Your task to perform on an android device: Find coffee shops on Maps Image 0: 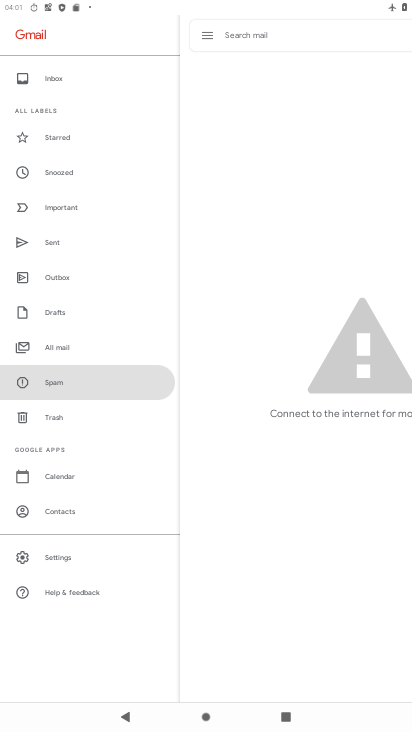
Step 0: press home button
Your task to perform on an android device: Find coffee shops on Maps Image 1: 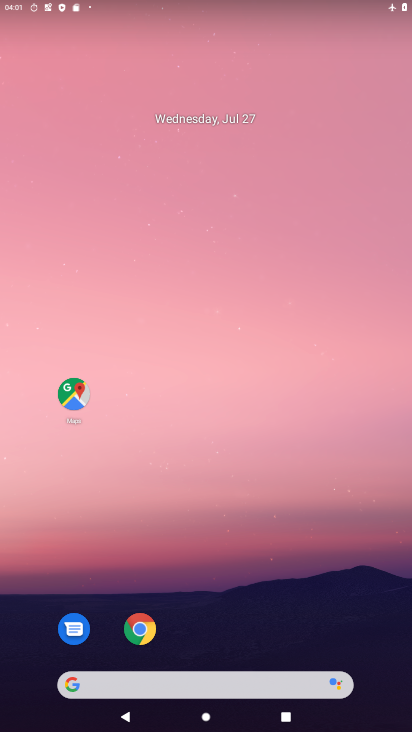
Step 1: drag from (351, 566) to (258, 35)
Your task to perform on an android device: Find coffee shops on Maps Image 2: 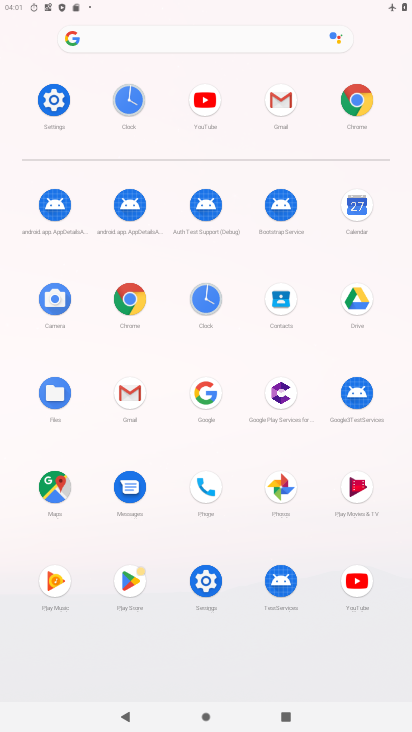
Step 2: click (65, 486)
Your task to perform on an android device: Find coffee shops on Maps Image 3: 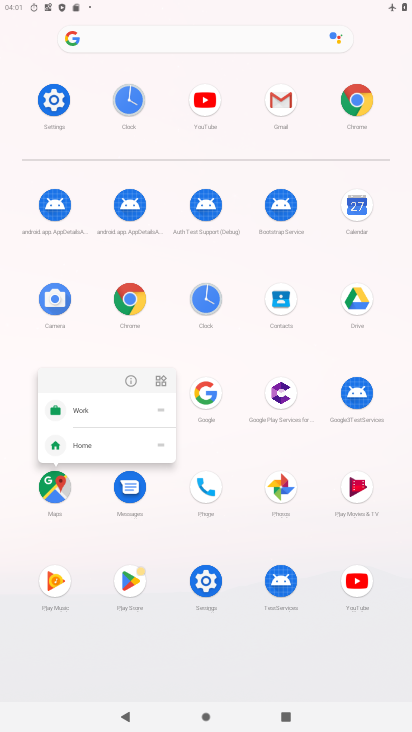
Step 3: click (53, 485)
Your task to perform on an android device: Find coffee shops on Maps Image 4: 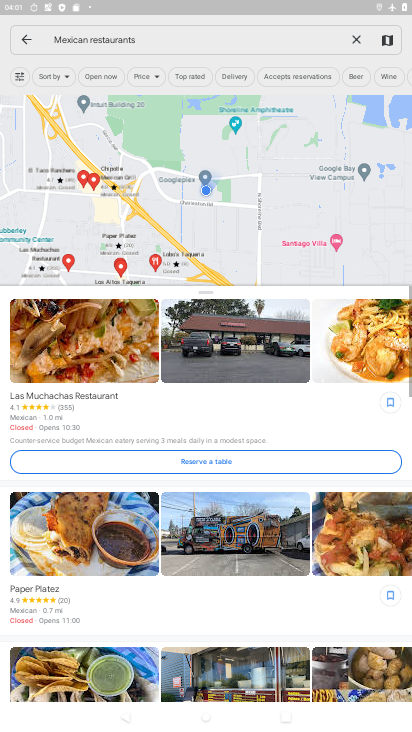
Step 4: click (358, 44)
Your task to perform on an android device: Find coffee shops on Maps Image 5: 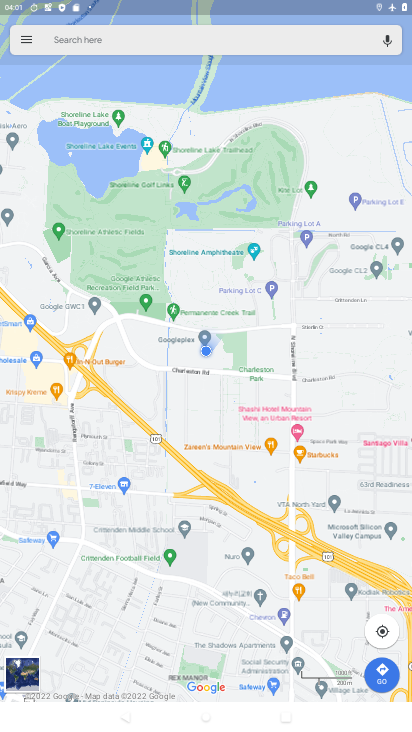
Step 5: click (265, 42)
Your task to perform on an android device: Find coffee shops on Maps Image 6: 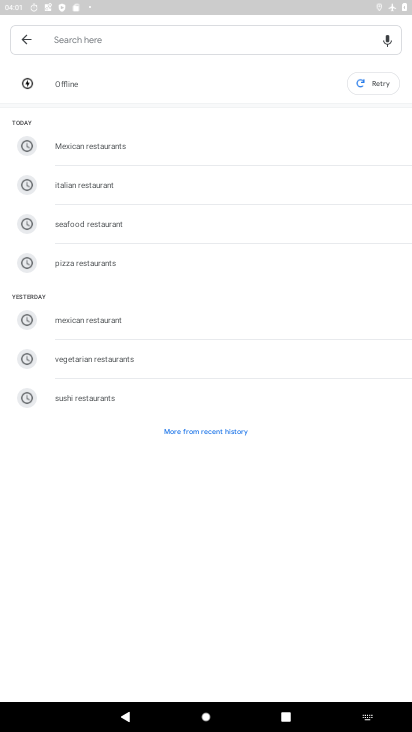
Step 6: type "coffee shops"
Your task to perform on an android device: Find coffee shops on Maps Image 7: 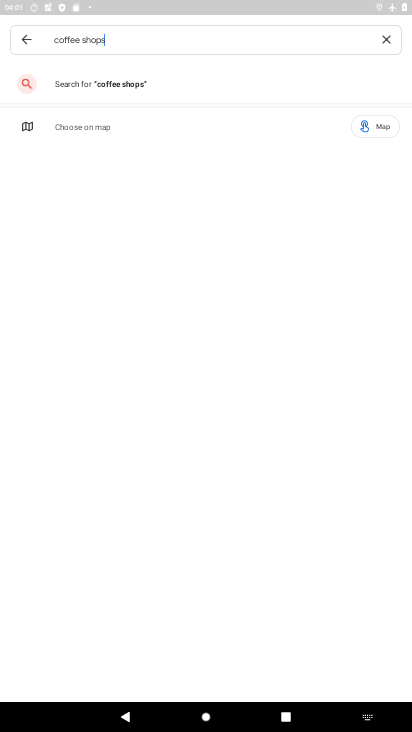
Step 7: click (132, 79)
Your task to perform on an android device: Find coffee shops on Maps Image 8: 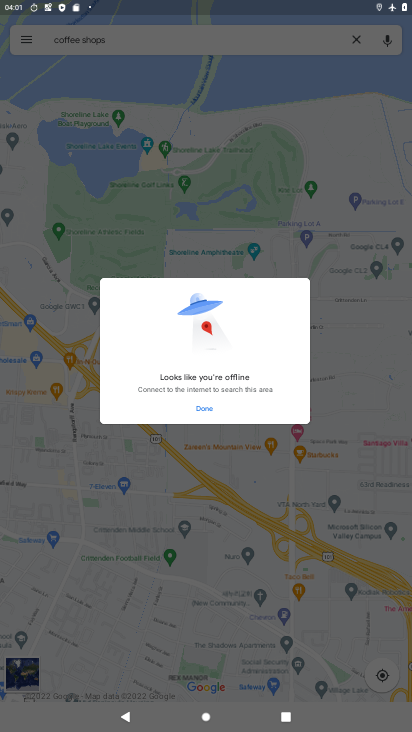
Step 8: task complete